Your task to perform on an android device: What's the weather going to be this weekend? Image 0: 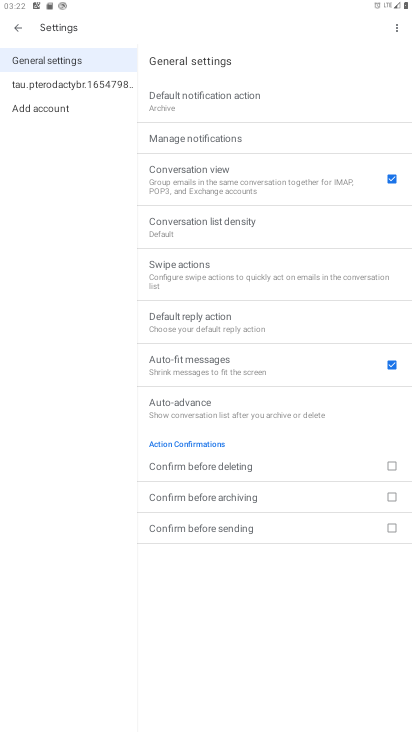
Step 0: press home button
Your task to perform on an android device: What's the weather going to be this weekend? Image 1: 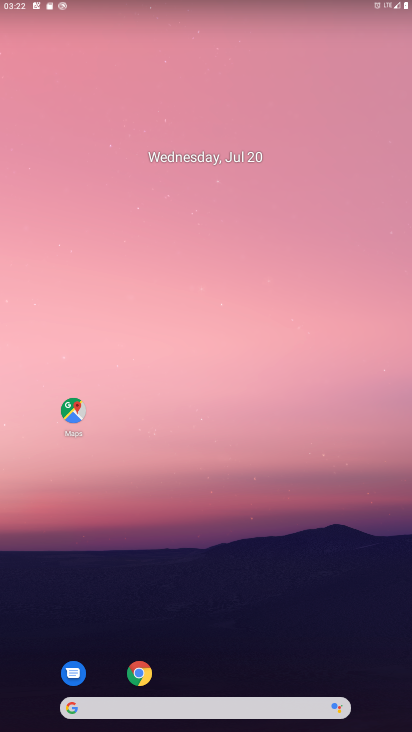
Step 1: click (164, 711)
Your task to perform on an android device: What's the weather going to be this weekend? Image 2: 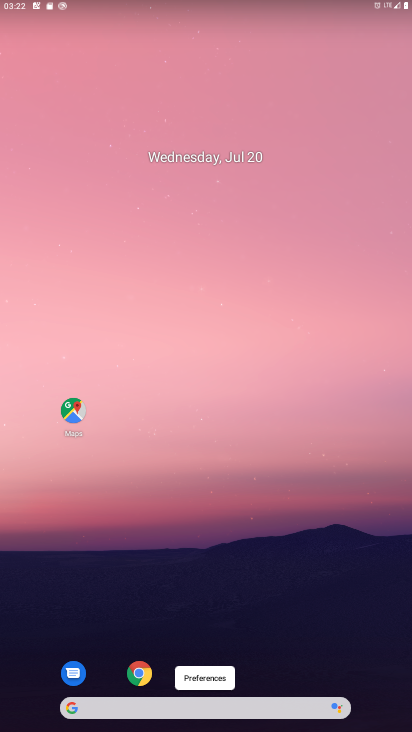
Step 2: click (188, 707)
Your task to perform on an android device: What's the weather going to be this weekend? Image 3: 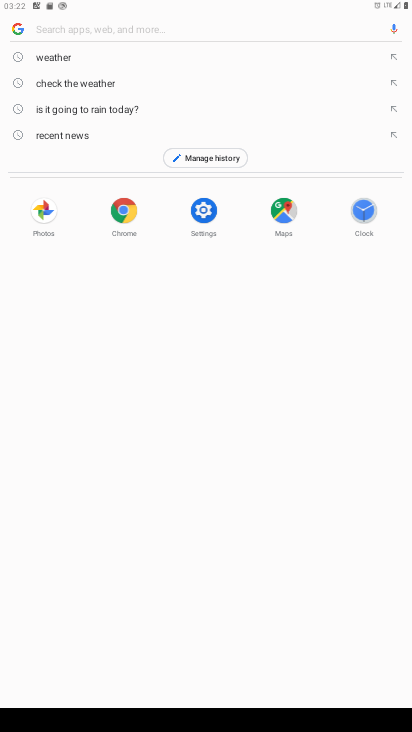
Step 3: click (56, 59)
Your task to perform on an android device: What's the weather going to be this weekend? Image 4: 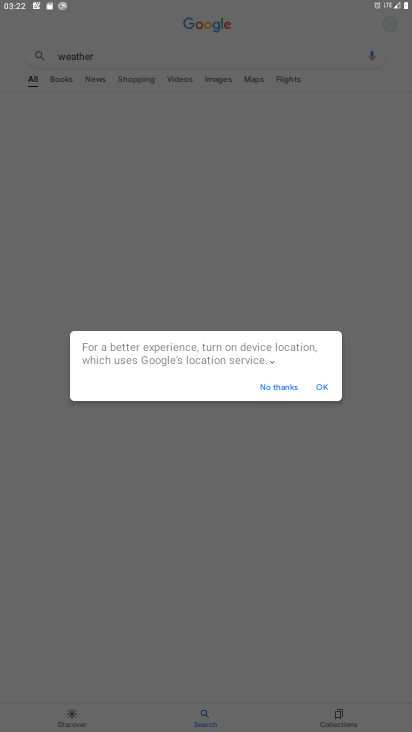
Step 4: click (318, 386)
Your task to perform on an android device: What's the weather going to be this weekend? Image 5: 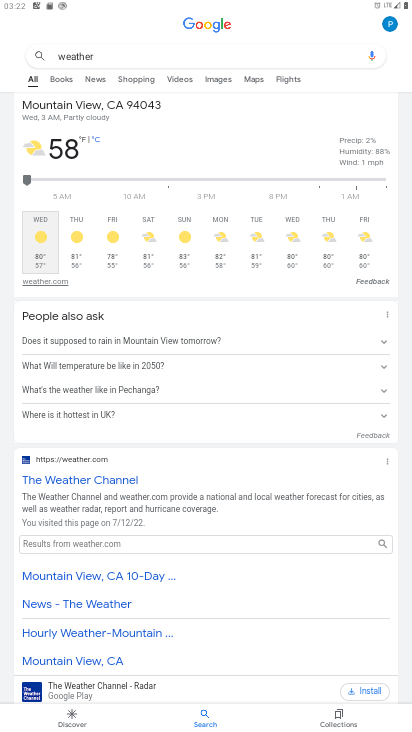
Step 5: click (176, 242)
Your task to perform on an android device: What's the weather going to be this weekend? Image 6: 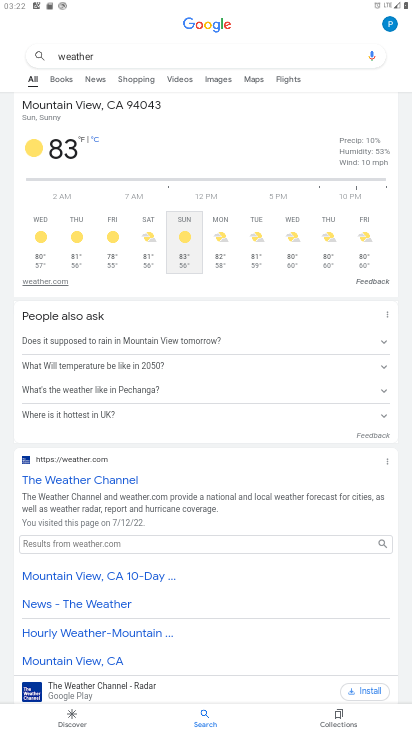
Step 6: click (149, 257)
Your task to perform on an android device: What's the weather going to be this weekend? Image 7: 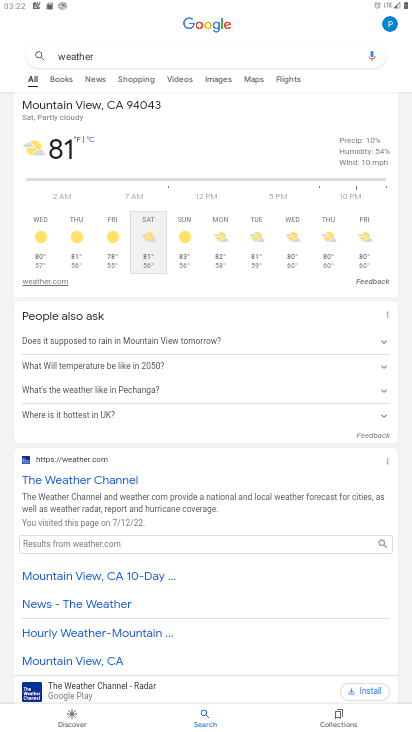
Step 7: task complete